Your task to perform on an android device: check the backup settings in the google photos Image 0: 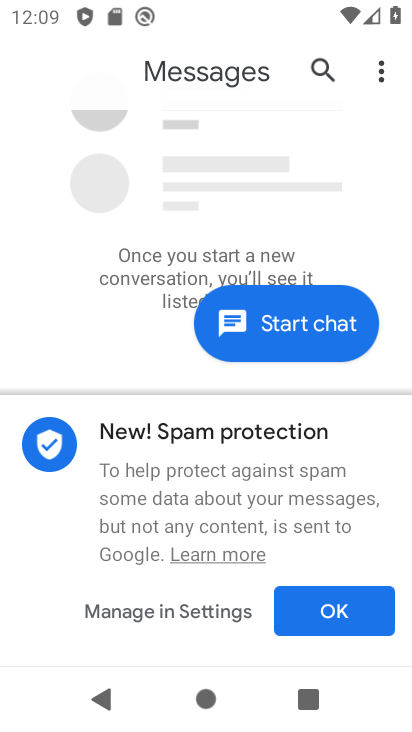
Step 0: press home button
Your task to perform on an android device: check the backup settings in the google photos Image 1: 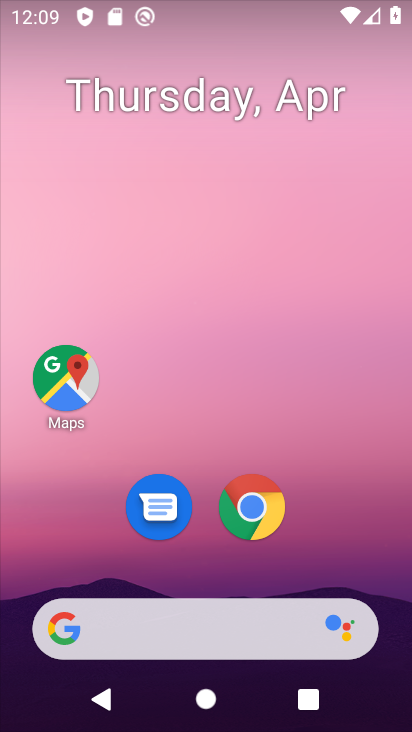
Step 1: drag from (187, 443) to (293, 4)
Your task to perform on an android device: check the backup settings in the google photos Image 2: 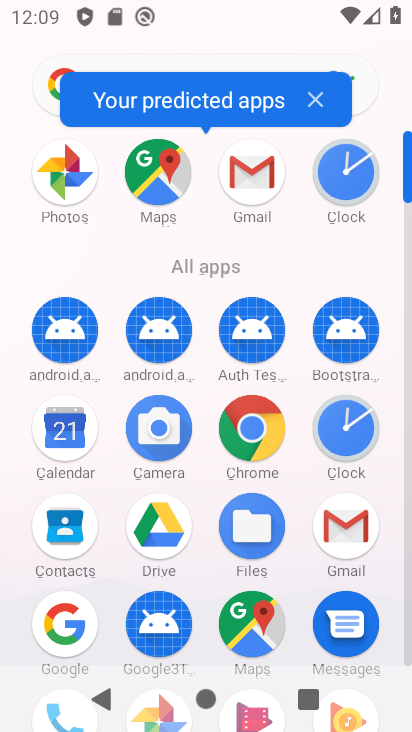
Step 2: click (65, 171)
Your task to perform on an android device: check the backup settings in the google photos Image 3: 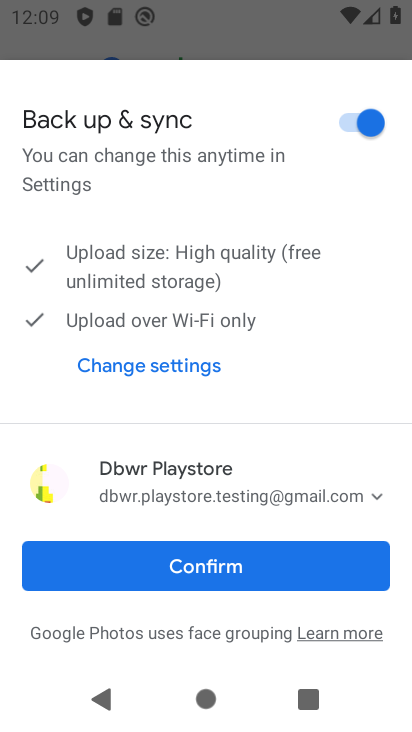
Step 3: click (215, 553)
Your task to perform on an android device: check the backup settings in the google photos Image 4: 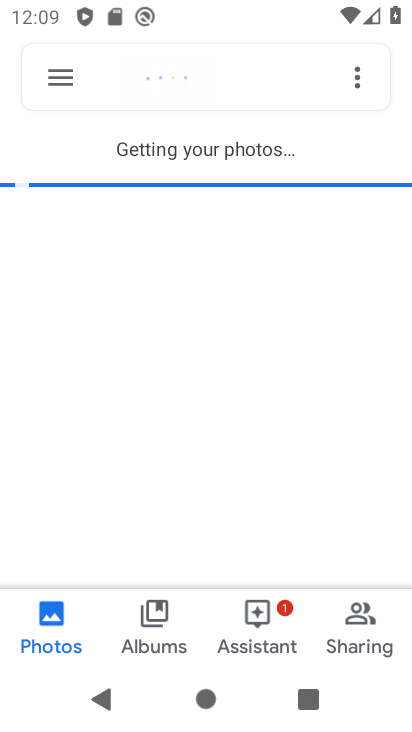
Step 4: click (68, 77)
Your task to perform on an android device: check the backup settings in the google photos Image 5: 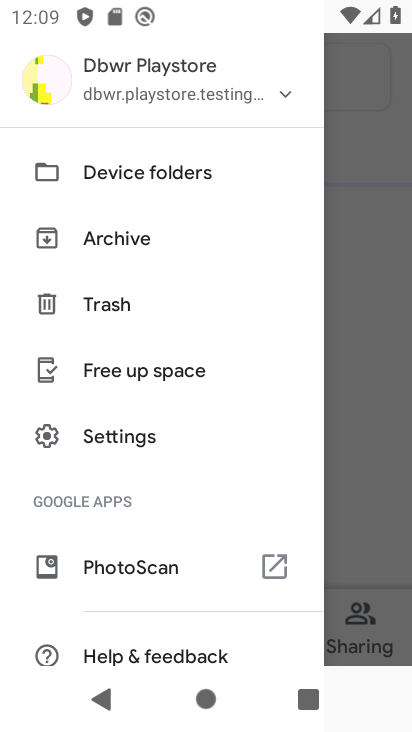
Step 5: click (147, 430)
Your task to perform on an android device: check the backup settings in the google photos Image 6: 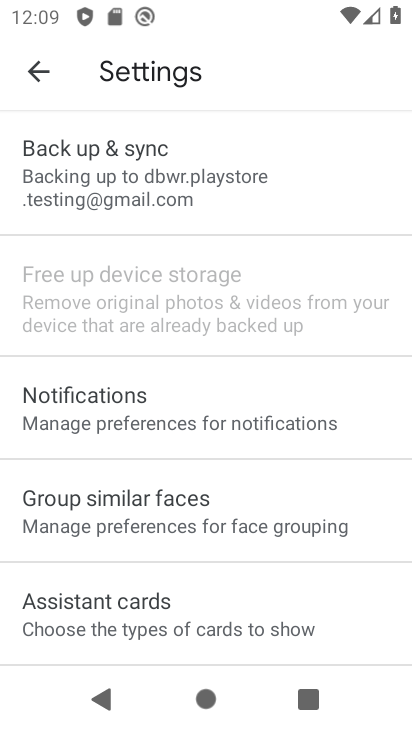
Step 6: click (171, 169)
Your task to perform on an android device: check the backup settings in the google photos Image 7: 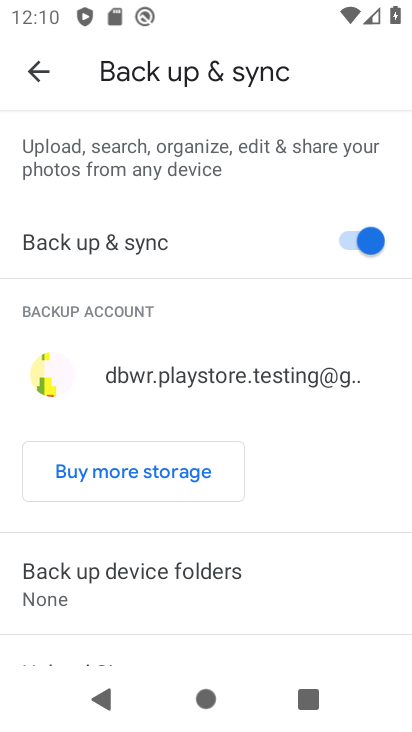
Step 7: task complete